Your task to perform on an android device: check data usage Image 0: 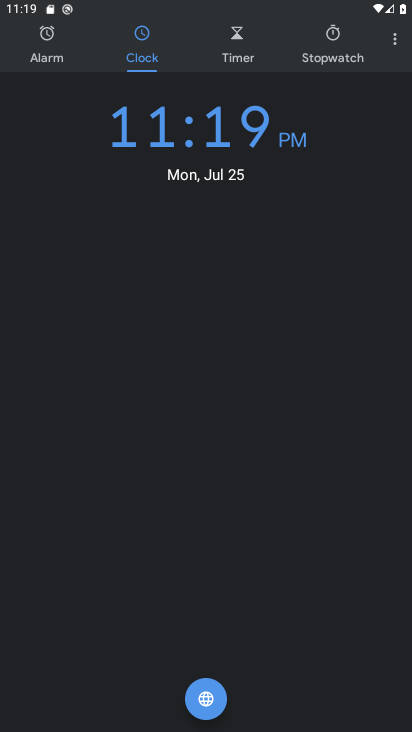
Step 0: press home button
Your task to perform on an android device: check data usage Image 1: 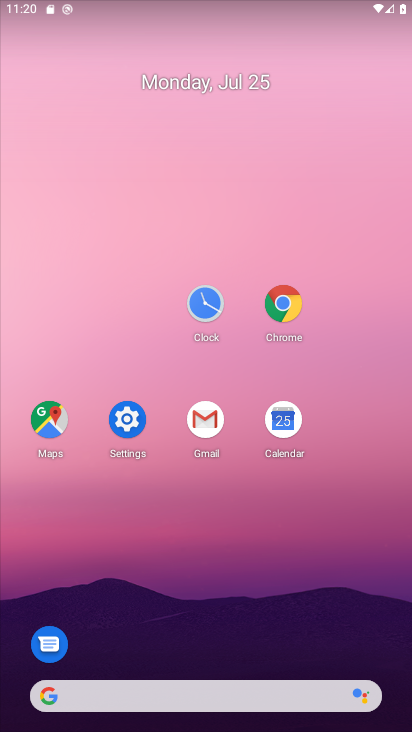
Step 1: click (135, 420)
Your task to perform on an android device: check data usage Image 2: 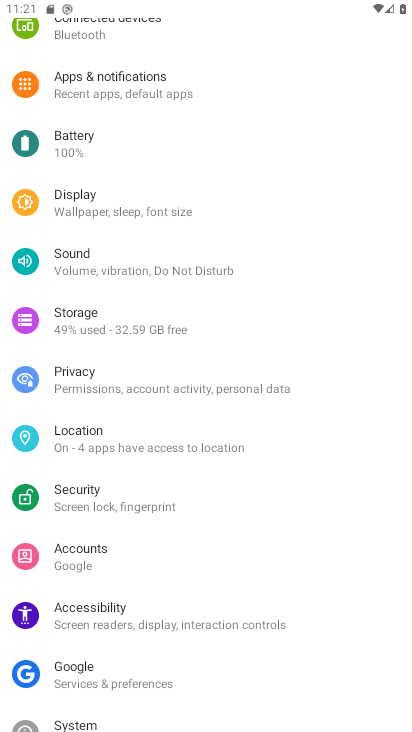
Step 2: drag from (272, 167) to (283, 543)
Your task to perform on an android device: check data usage Image 3: 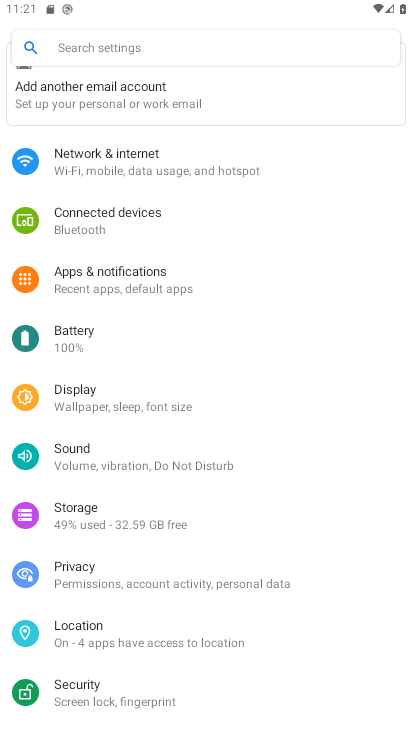
Step 3: click (99, 165)
Your task to perform on an android device: check data usage Image 4: 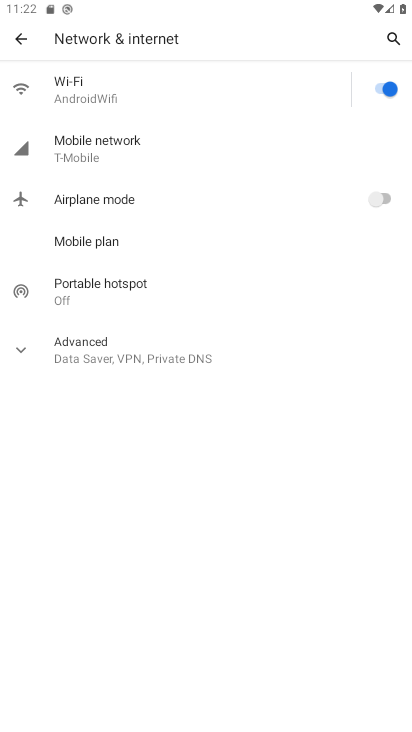
Step 4: click (124, 137)
Your task to perform on an android device: check data usage Image 5: 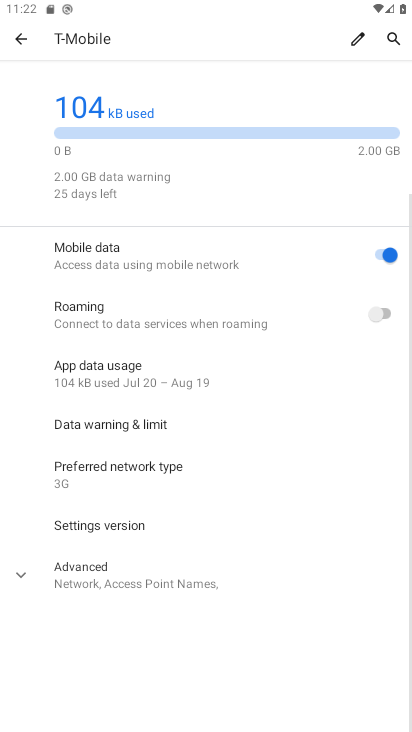
Step 5: task complete